Your task to perform on an android device: Set the phone to "Do not disturb". Image 0: 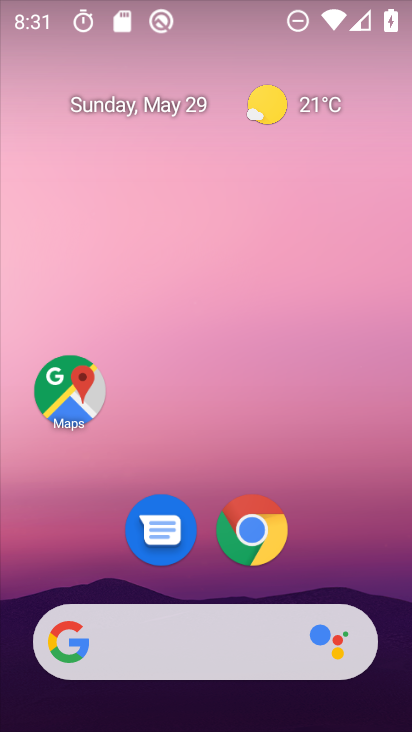
Step 0: drag from (264, 694) to (123, 78)
Your task to perform on an android device: Set the phone to "Do not disturb". Image 1: 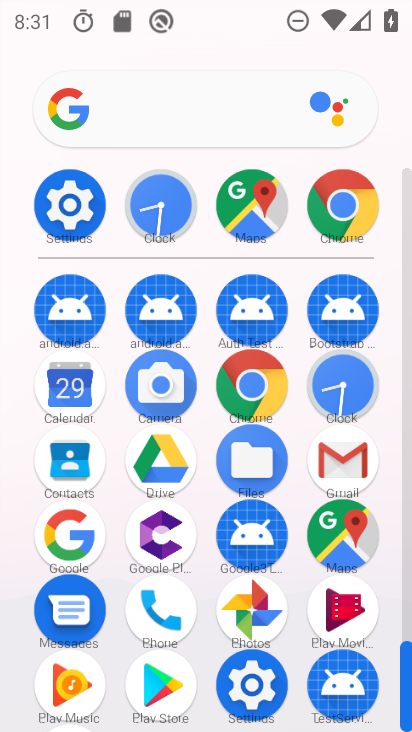
Step 1: click (67, 221)
Your task to perform on an android device: Set the phone to "Do not disturb". Image 2: 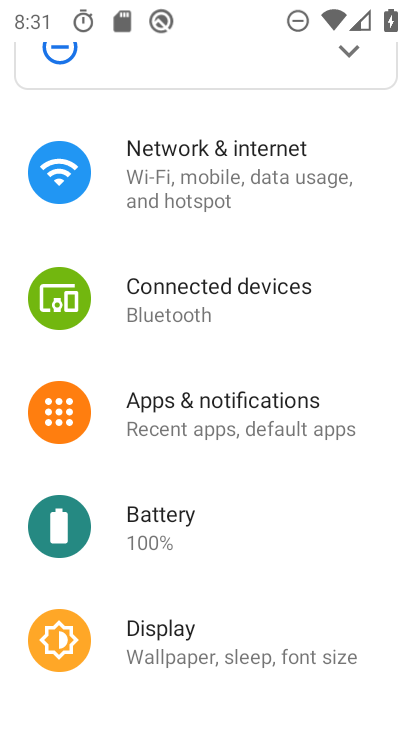
Step 2: drag from (157, 197) to (235, 413)
Your task to perform on an android device: Set the phone to "Do not disturb". Image 3: 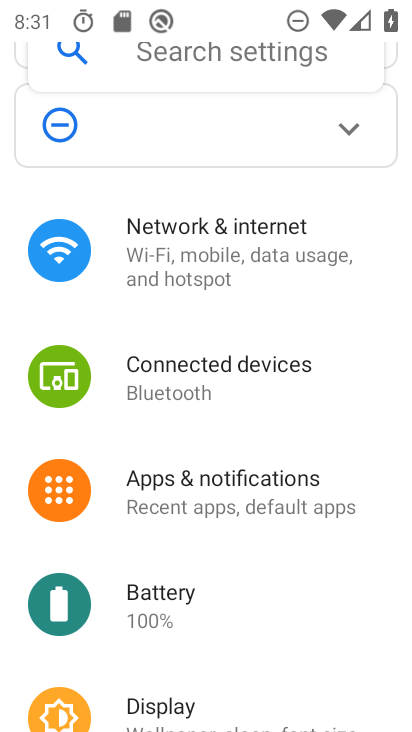
Step 3: click (140, 50)
Your task to perform on an android device: Set the phone to "Do not disturb". Image 4: 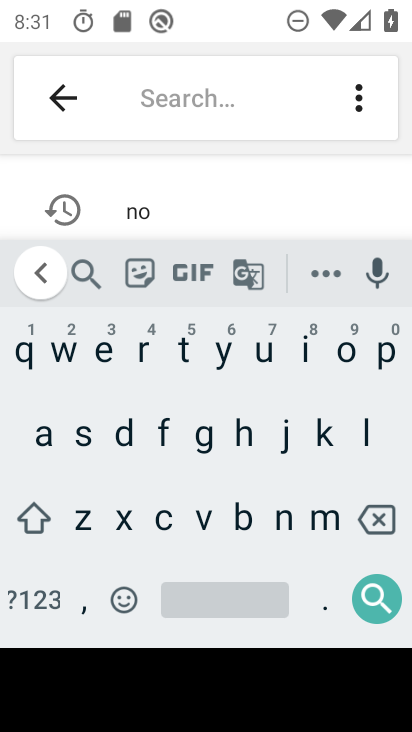
Step 4: click (116, 453)
Your task to perform on an android device: Set the phone to "Do not disturb". Image 5: 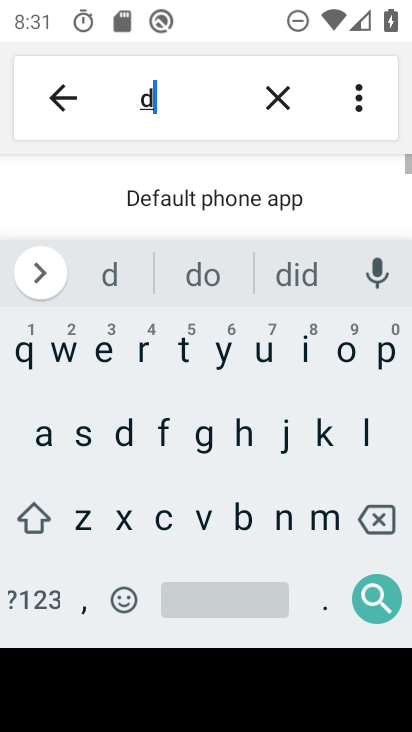
Step 5: click (273, 515)
Your task to perform on an android device: Set the phone to "Do not disturb". Image 6: 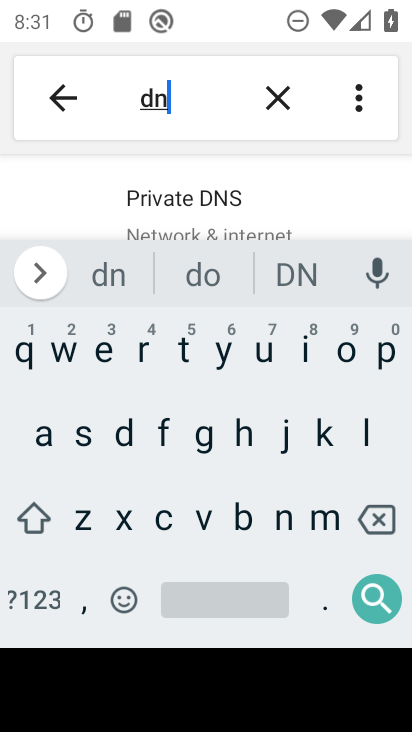
Step 6: click (121, 435)
Your task to perform on an android device: Set the phone to "Do not disturb". Image 7: 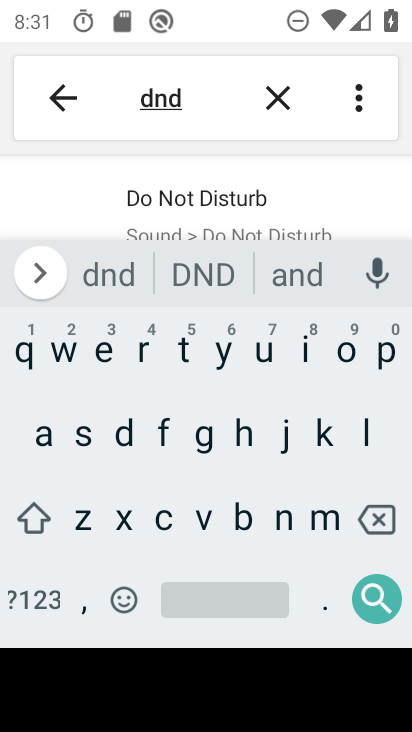
Step 7: click (180, 193)
Your task to perform on an android device: Set the phone to "Do not disturb". Image 8: 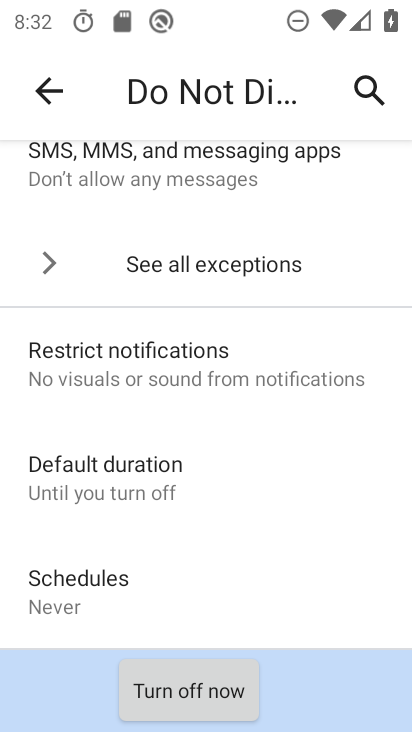
Step 8: task complete